Your task to perform on an android device: turn off translation in the chrome app Image 0: 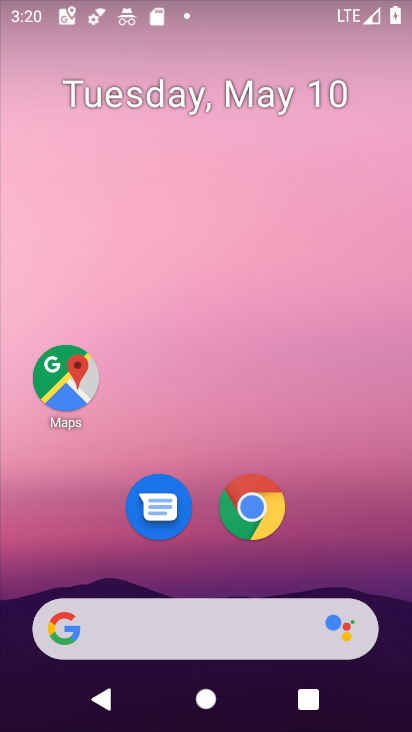
Step 0: click (259, 504)
Your task to perform on an android device: turn off translation in the chrome app Image 1: 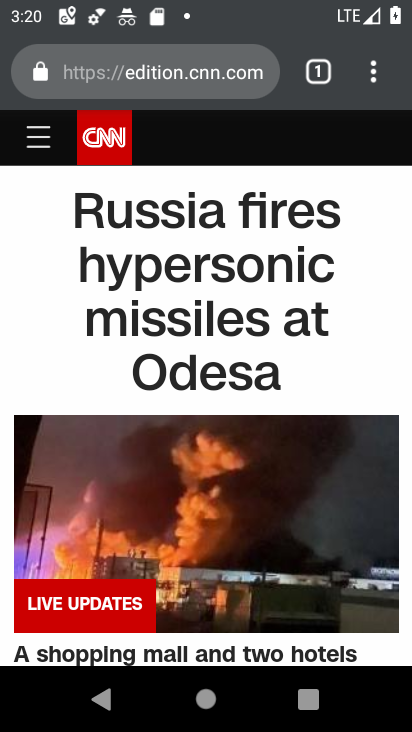
Step 1: click (180, 69)
Your task to perform on an android device: turn off translation in the chrome app Image 2: 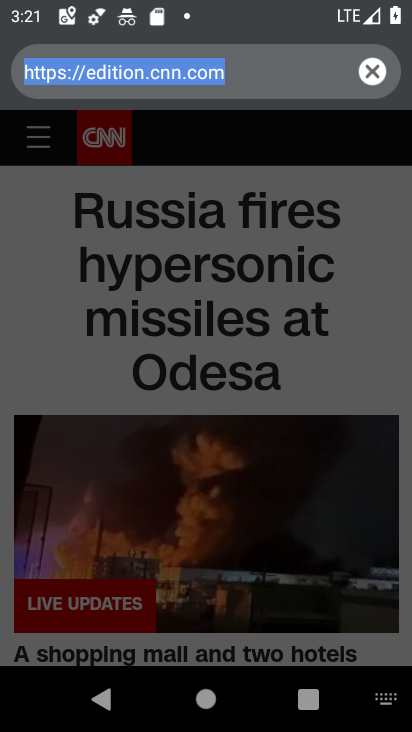
Step 2: click (170, 154)
Your task to perform on an android device: turn off translation in the chrome app Image 3: 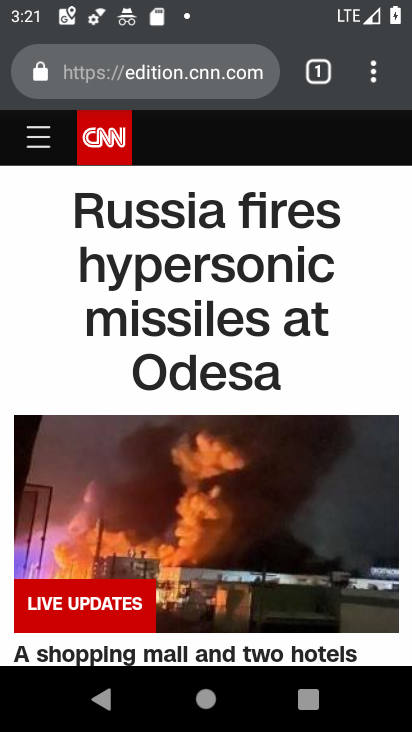
Step 3: click (377, 74)
Your task to perform on an android device: turn off translation in the chrome app Image 4: 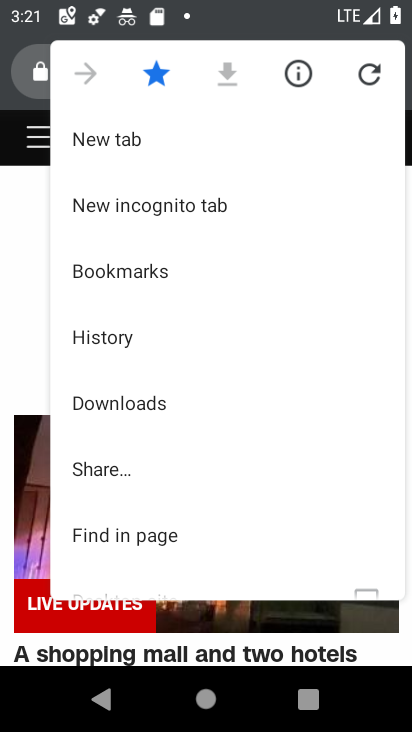
Step 4: drag from (159, 528) to (158, 208)
Your task to perform on an android device: turn off translation in the chrome app Image 5: 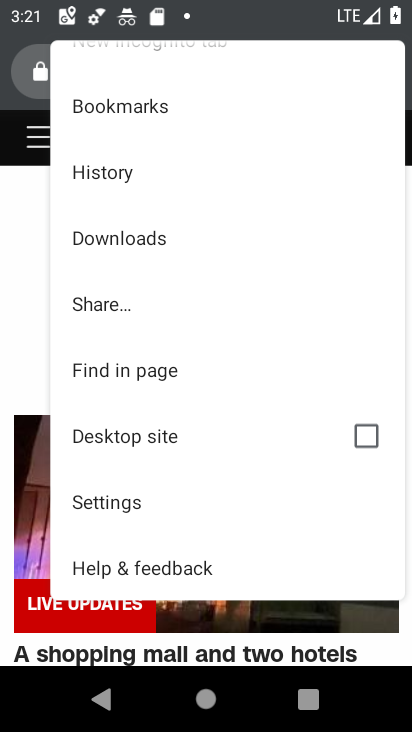
Step 5: click (118, 501)
Your task to perform on an android device: turn off translation in the chrome app Image 6: 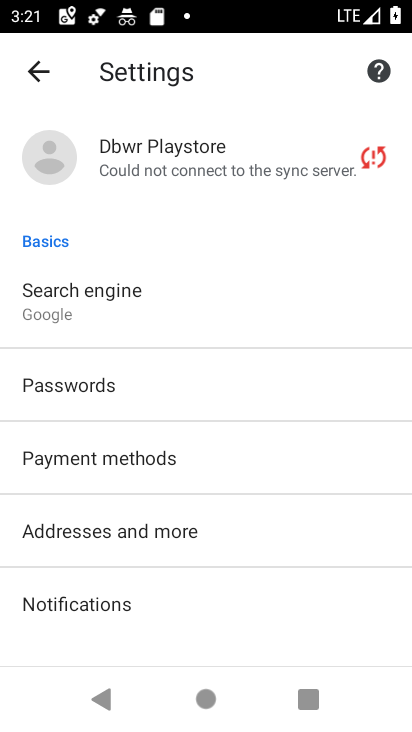
Step 6: drag from (114, 562) to (116, 224)
Your task to perform on an android device: turn off translation in the chrome app Image 7: 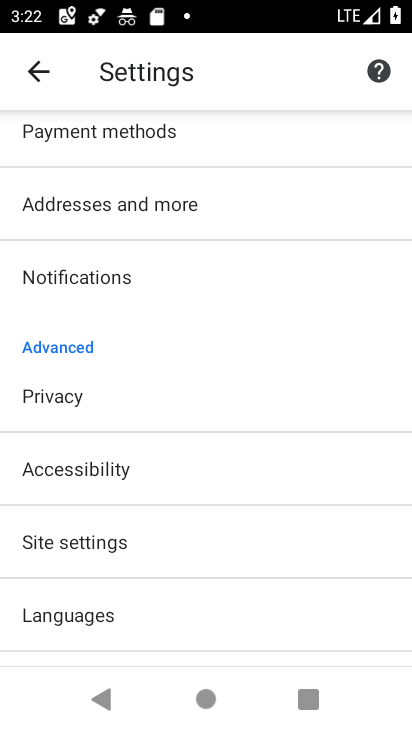
Step 7: drag from (90, 549) to (171, 278)
Your task to perform on an android device: turn off translation in the chrome app Image 8: 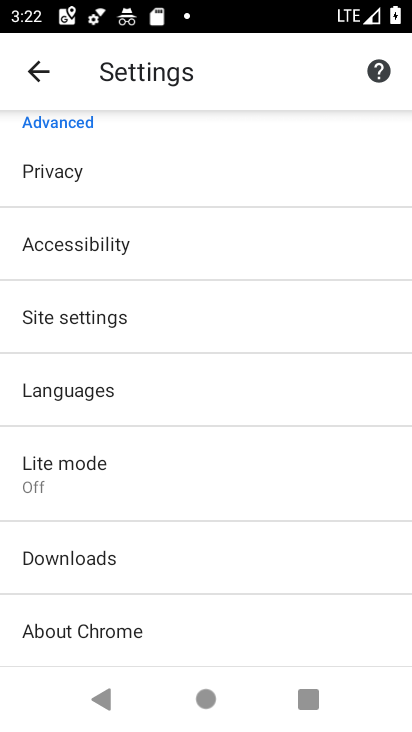
Step 8: click (101, 396)
Your task to perform on an android device: turn off translation in the chrome app Image 9: 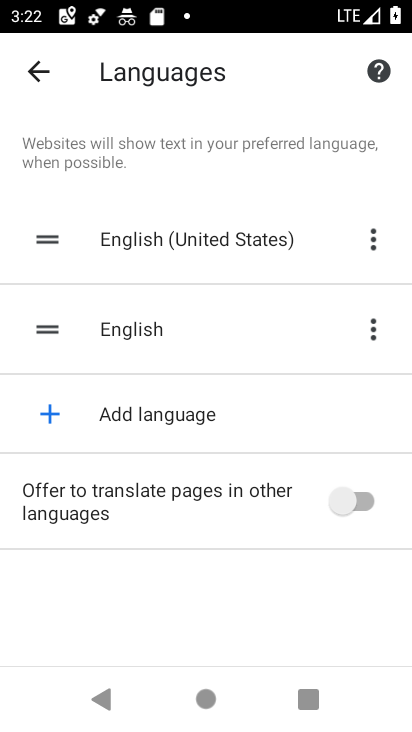
Step 9: click (78, 574)
Your task to perform on an android device: turn off translation in the chrome app Image 10: 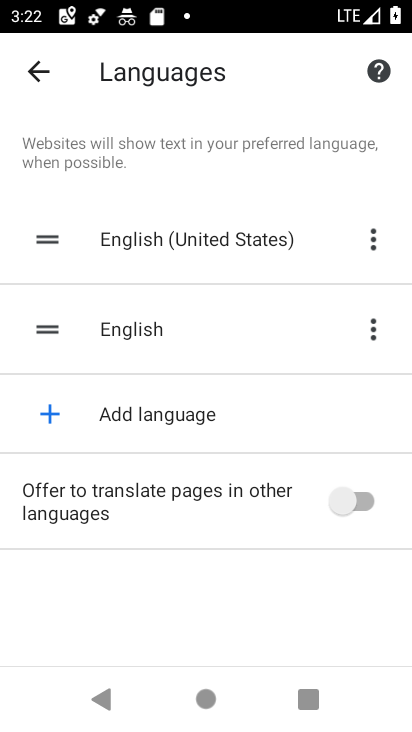
Step 10: task complete